Your task to perform on an android device: Open display settings Image 0: 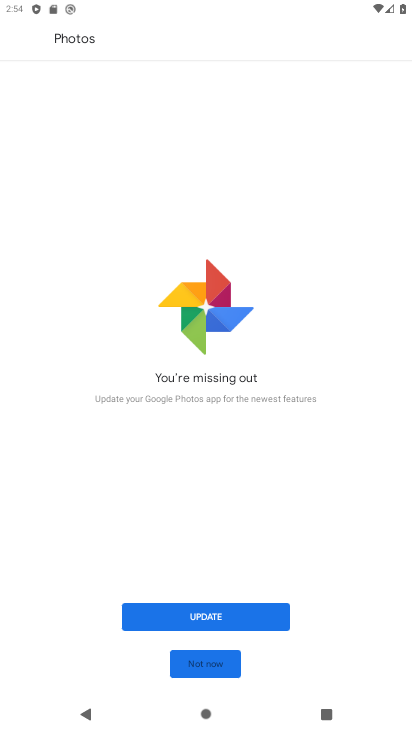
Step 0: press home button
Your task to perform on an android device: Open display settings Image 1: 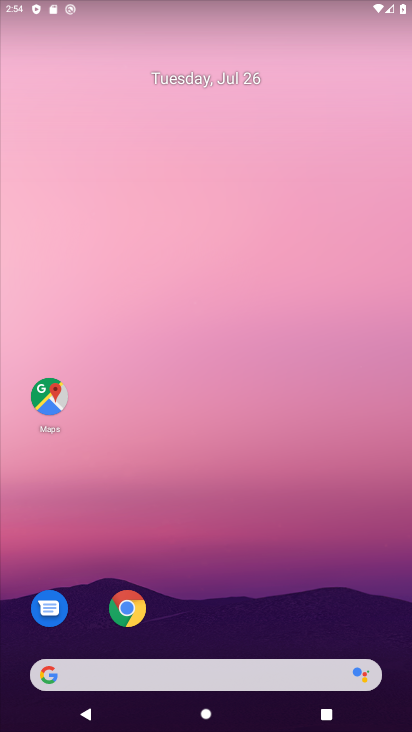
Step 1: drag from (220, 603) to (342, 31)
Your task to perform on an android device: Open display settings Image 2: 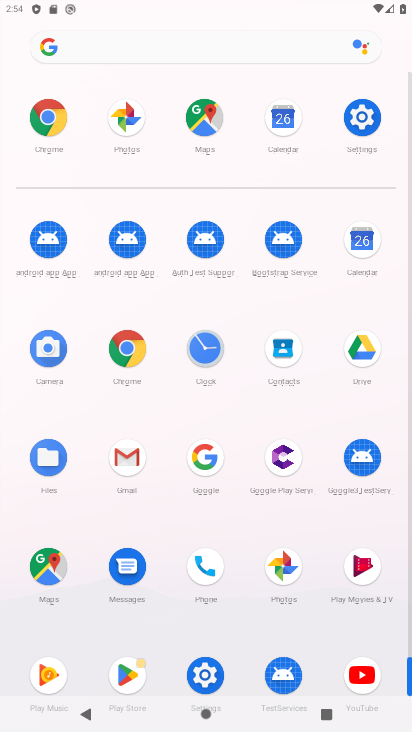
Step 2: click (205, 682)
Your task to perform on an android device: Open display settings Image 3: 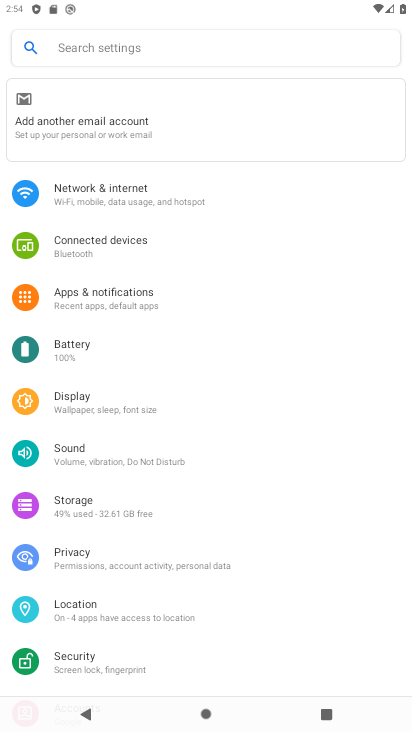
Step 3: click (101, 404)
Your task to perform on an android device: Open display settings Image 4: 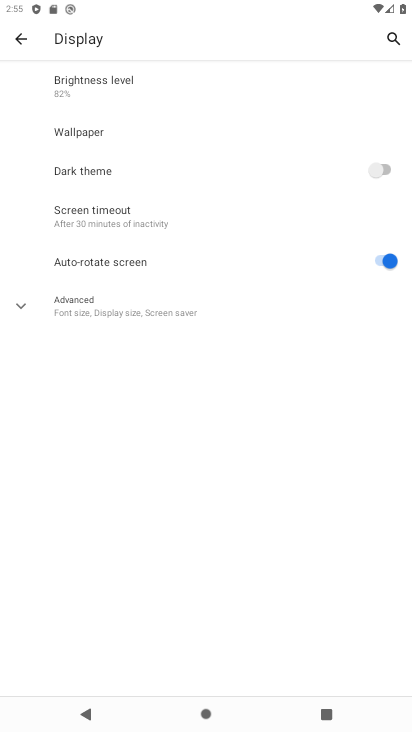
Step 4: task complete